Your task to perform on an android device: toggle improve location accuracy Image 0: 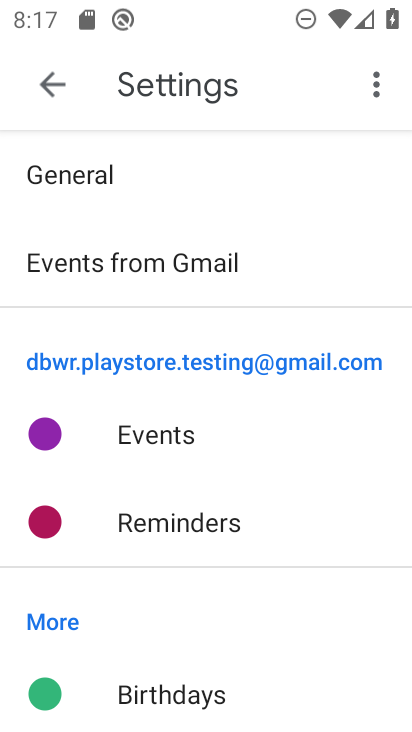
Step 0: press home button
Your task to perform on an android device: toggle improve location accuracy Image 1: 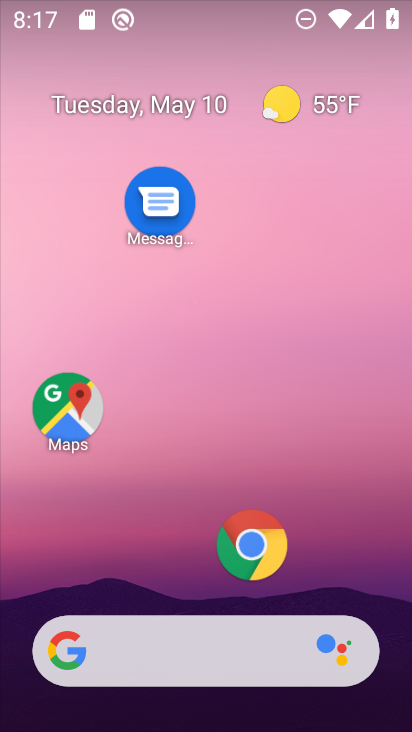
Step 1: drag from (177, 579) to (220, 206)
Your task to perform on an android device: toggle improve location accuracy Image 2: 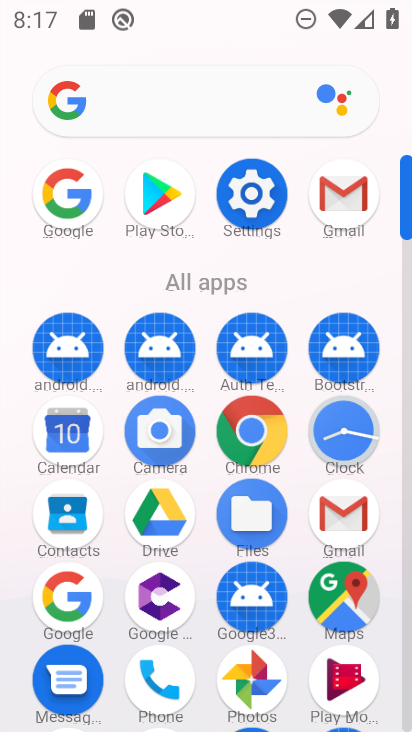
Step 2: click (232, 194)
Your task to perform on an android device: toggle improve location accuracy Image 3: 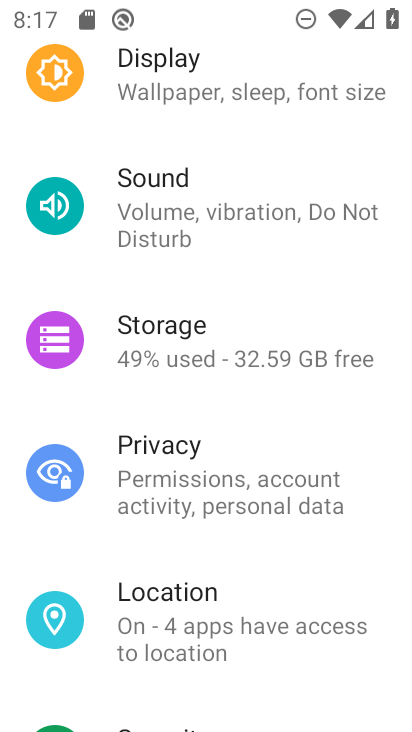
Step 3: click (197, 643)
Your task to perform on an android device: toggle improve location accuracy Image 4: 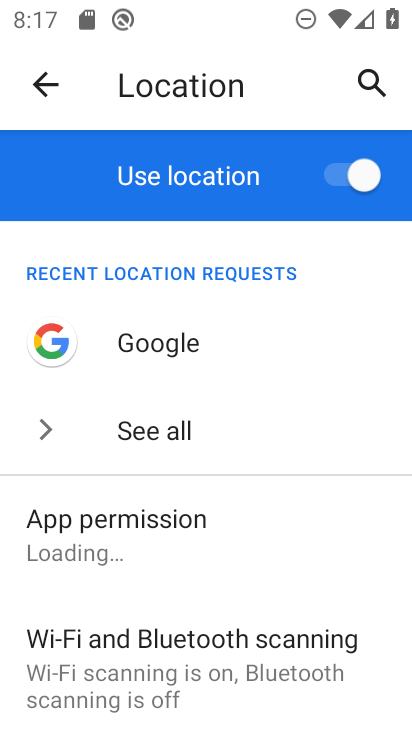
Step 4: click (341, 171)
Your task to perform on an android device: toggle improve location accuracy Image 5: 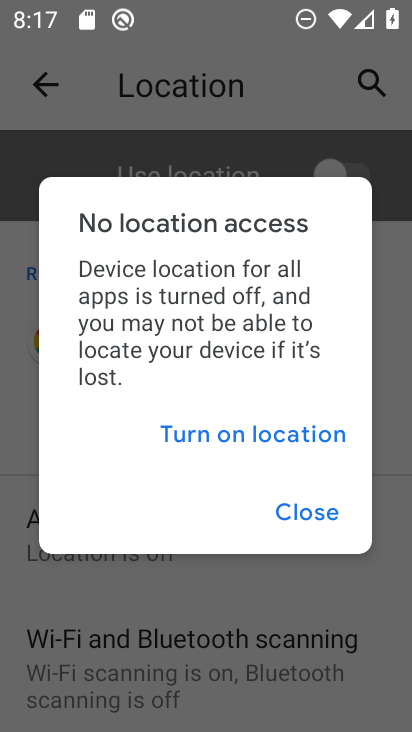
Step 5: click (260, 441)
Your task to perform on an android device: toggle improve location accuracy Image 6: 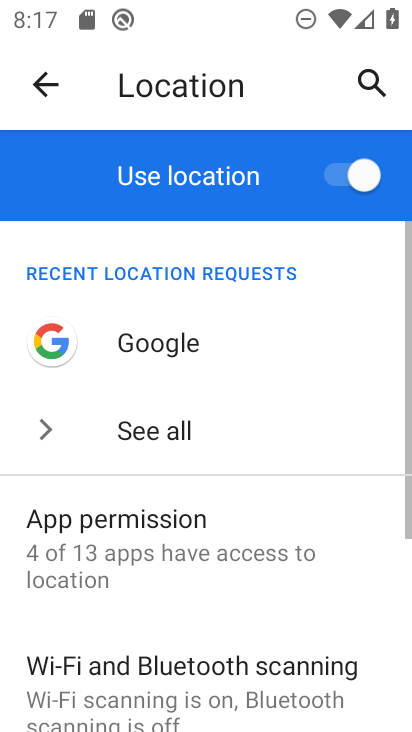
Step 6: drag from (249, 631) to (274, 243)
Your task to perform on an android device: toggle improve location accuracy Image 7: 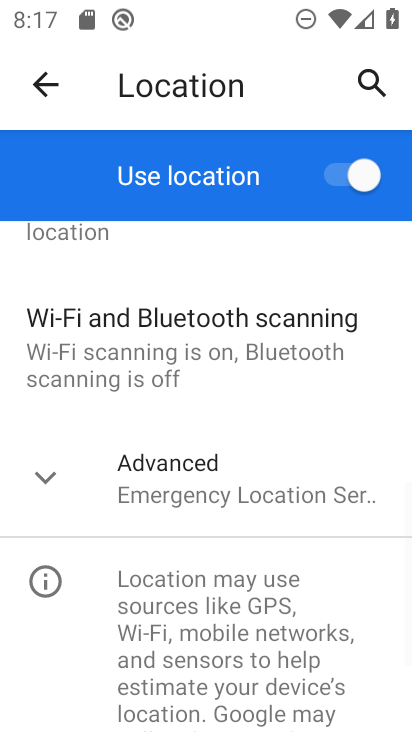
Step 7: click (151, 496)
Your task to perform on an android device: toggle improve location accuracy Image 8: 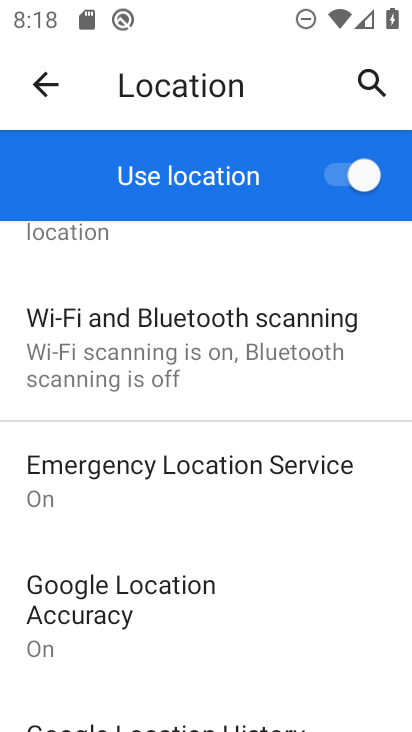
Step 8: click (188, 634)
Your task to perform on an android device: toggle improve location accuracy Image 9: 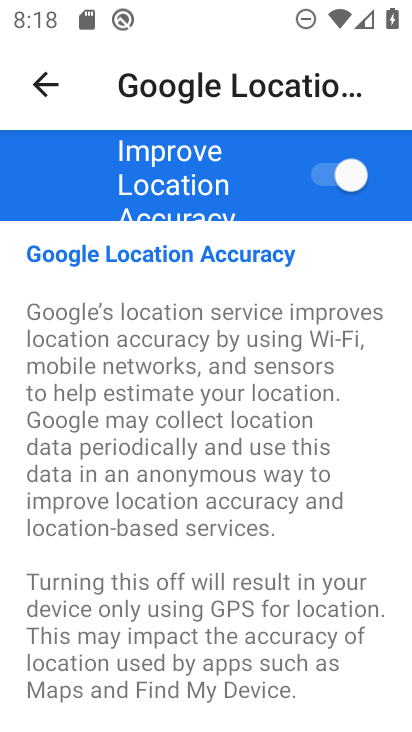
Step 9: click (329, 172)
Your task to perform on an android device: toggle improve location accuracy Image 10: 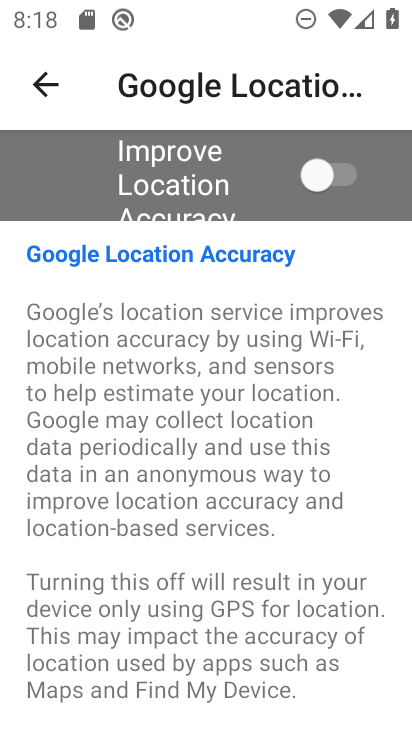
Step 10: task complete